Your task to perform on an android device: find snoozed emails in the gmail app Image 0: 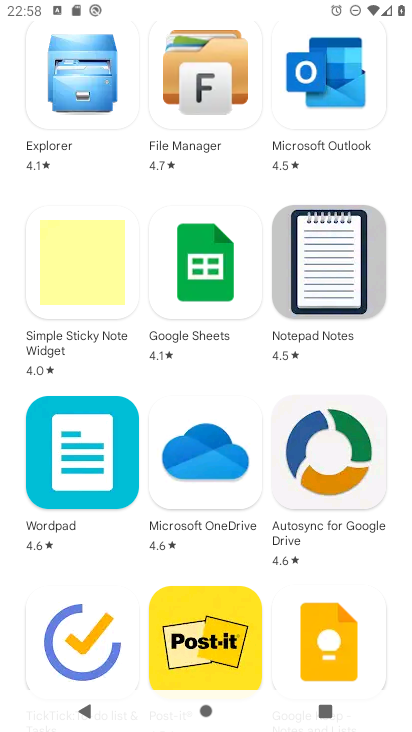
Step 0: press home button
Your task to perform on an android device: find snoozed emails in the gmail app Image 1: 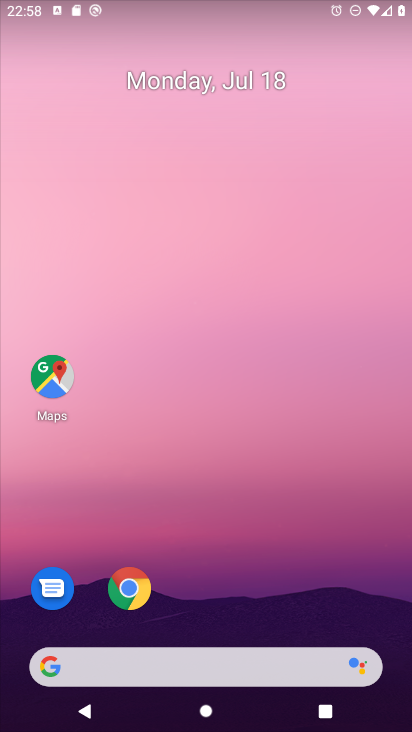
Step 1: drag from (374, 624) to (340, 246)
Your task to perform on an android device: find snoozed emails in the gmail app Image 2: 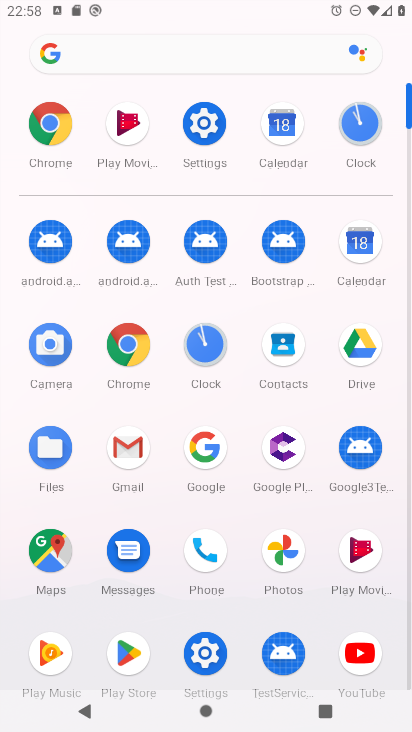
Step 2: click (124, 447)
Your task to perform on an android device: find snoozed emails in the gmail app Image 3: 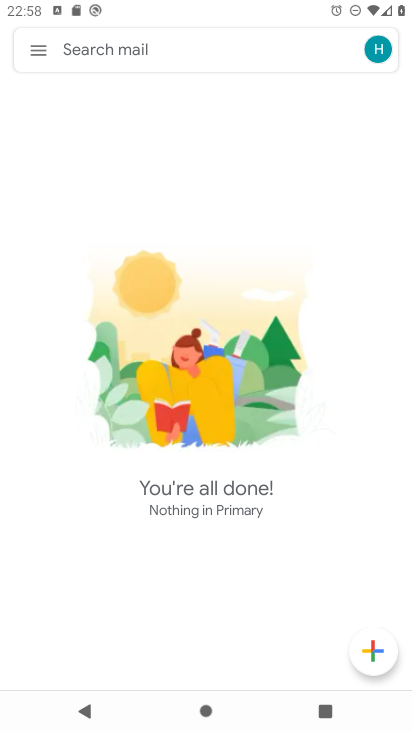
Step 3: click (38, 53)
Your task to perform on an android device: find snoozed emails in the gmail app Image 4: 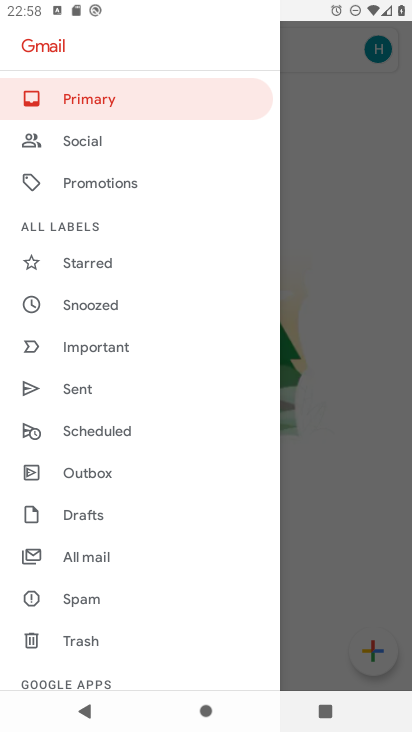
Step 4: click (94, 303)
Your task to perform on an android device: find snoozed emails in the gmail app Image 5: 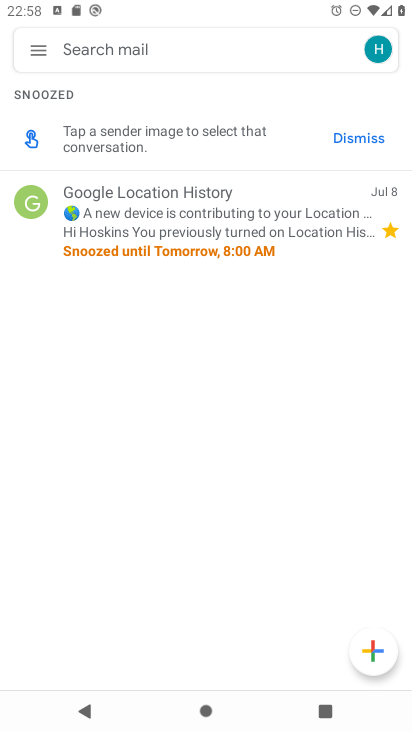
Step 5: task complete